Your task to perform on an android device: Is it going to rain tomorrow? Image 0: 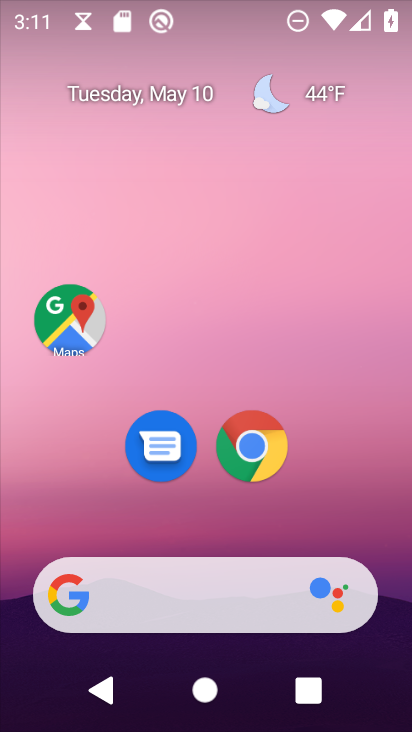
Step 0: drag from (335, 508) to (195, 3)
Your task to perform on an android device: Is it going to rain tomorrow? Image 1: 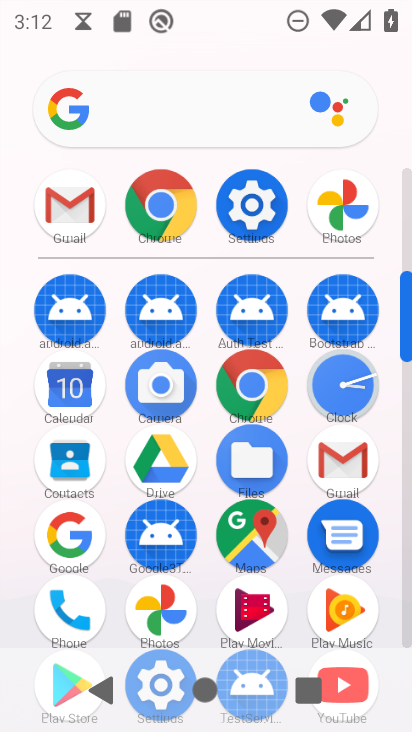
Step 1: press home button
Your task to perform on an android device: Is it going to rain tomorrow? Image 2: 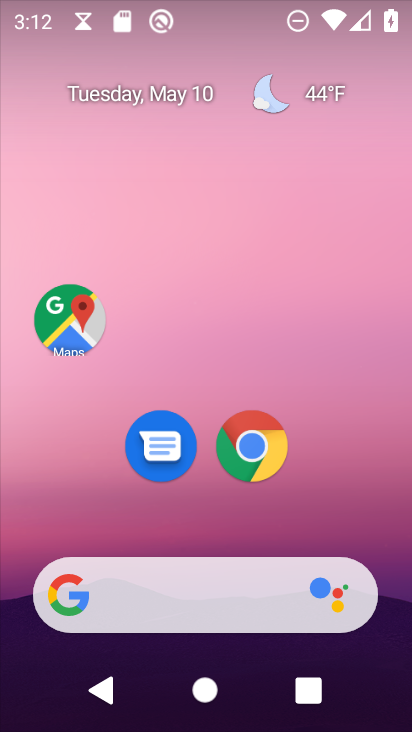
Step 2: click (260, 102)
Your task to perform on an android device: Is it going to rain tomorrow? Image 3: 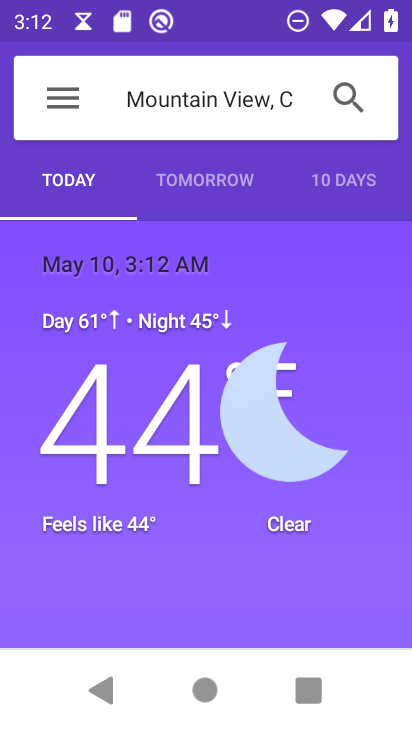
Step 3: task complete